Your task to perform on an android device: Go to eBay Image 0: 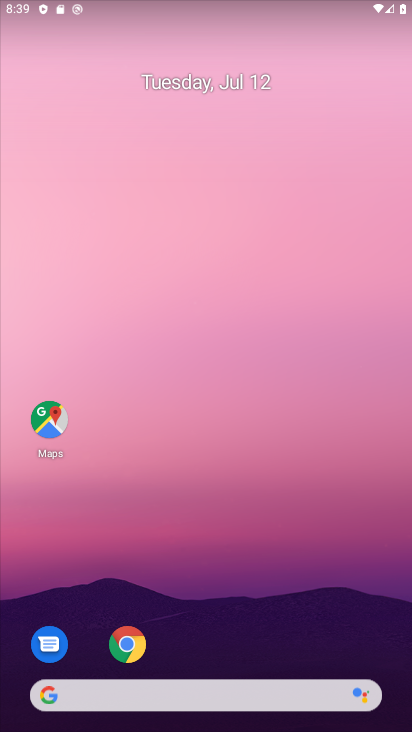
Step 0: click (122, 644)
Your task to perform on an android device: Go to eBay Image 1: 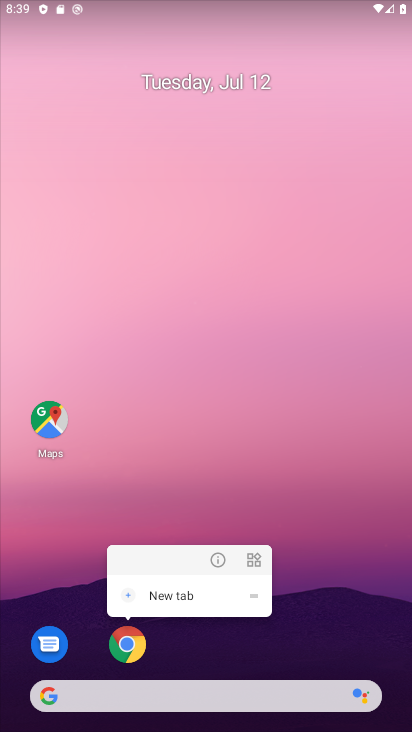
Step 1: click (132, 653)
Your task to perform on an android device: Go to eBay Image 2: 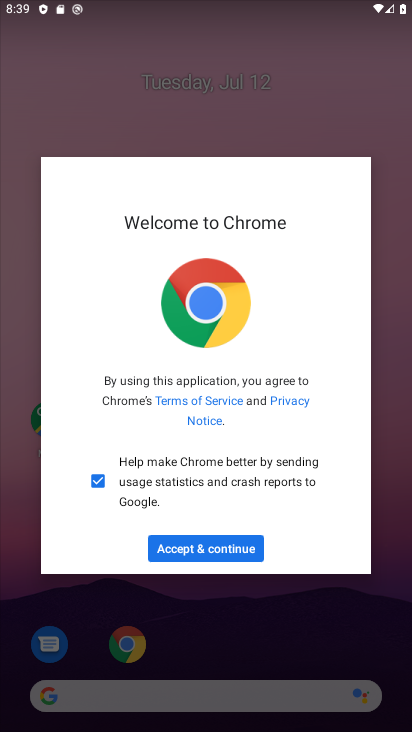
Step 2: click (203, 540)
Your task to perform on an android device: Go to eBay Image 3: 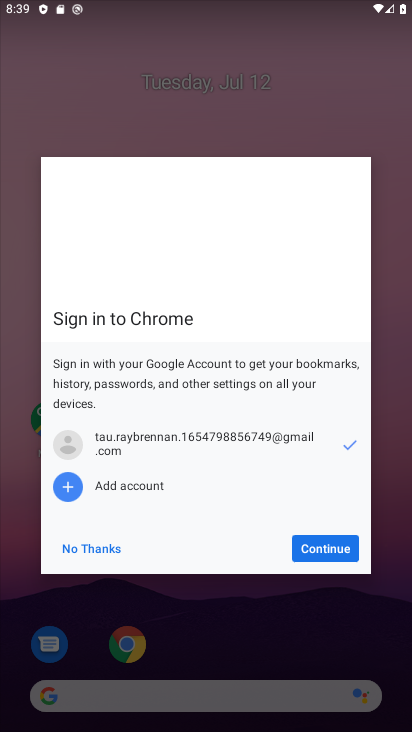
Step 3: click (318, 553)
Your task to perform on an android device: Go to eBay Image 4: 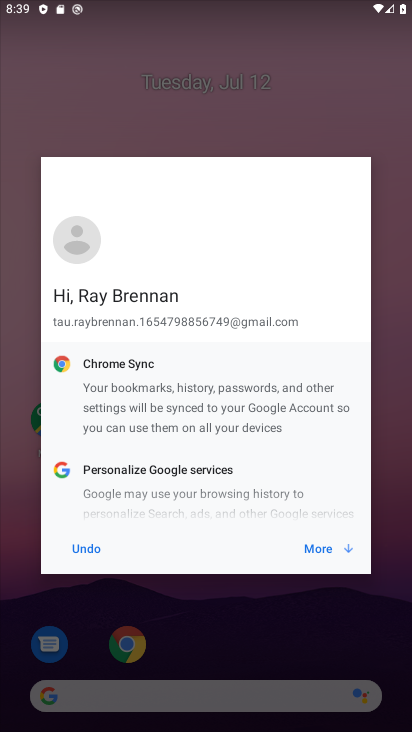
Step 4: click (314, 550)
Your task to perform on an android device: Go to eBay Image 5: 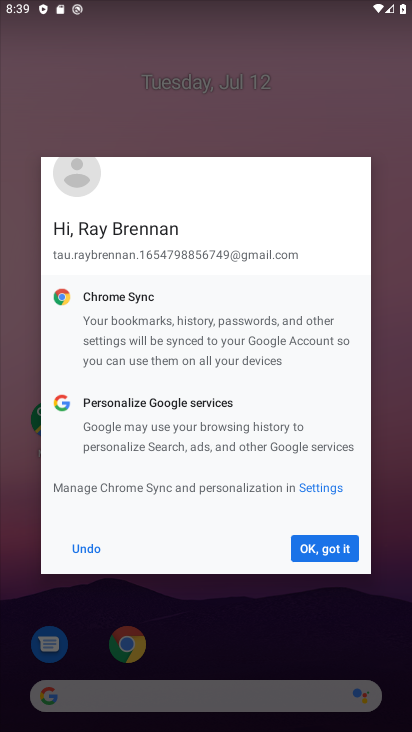
Step 5: click (314, 550)
Your task to perform on an android device: Go to eBay Image 6: 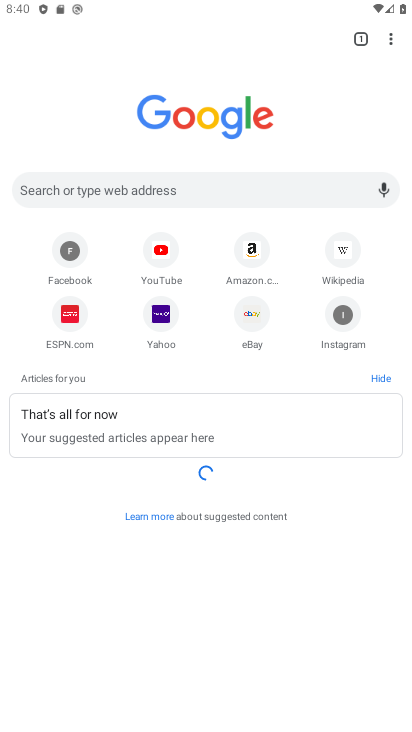
Step 6: click (248, 311)
Your task to perform on an android device: Go to eBay Image 7: 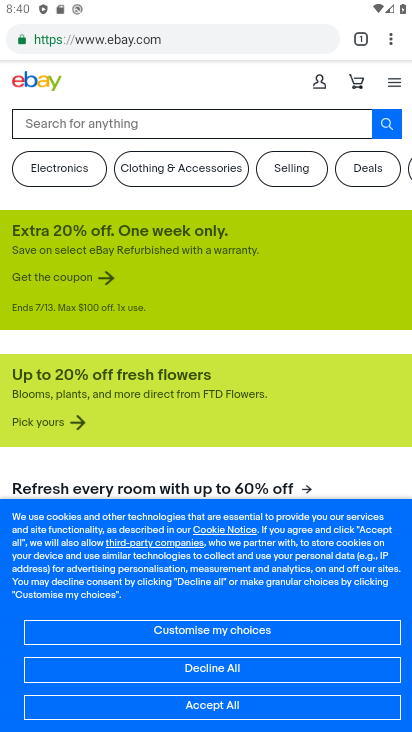
Step 7: click (220, 708)
Your task to perform on an android device: Go to eBay Image 8: 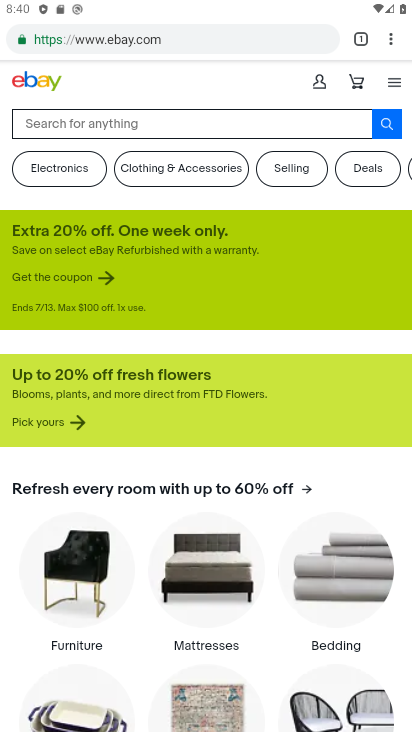
Step 8: task complete